Your task to perform on an android device: Open Google Maps and go to "Timeline" Image 0: 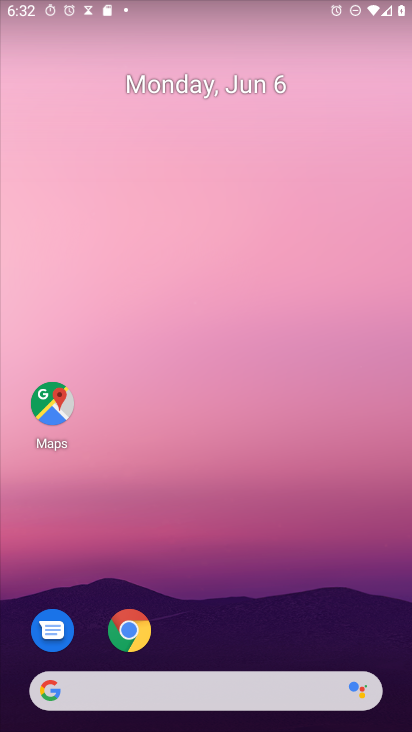
Step 0: drag from (283, 600) to (19, 86)
Your task to perform on an android device: Open Google Maps and go to "Timeline" Image 1: 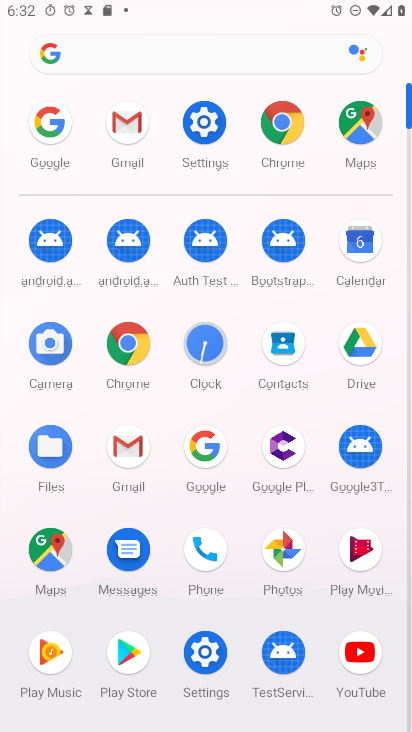
Step 1: click (52, 548)
Your task to perform on an android device: Open Google Maps and go to "Timeline" Image 2: 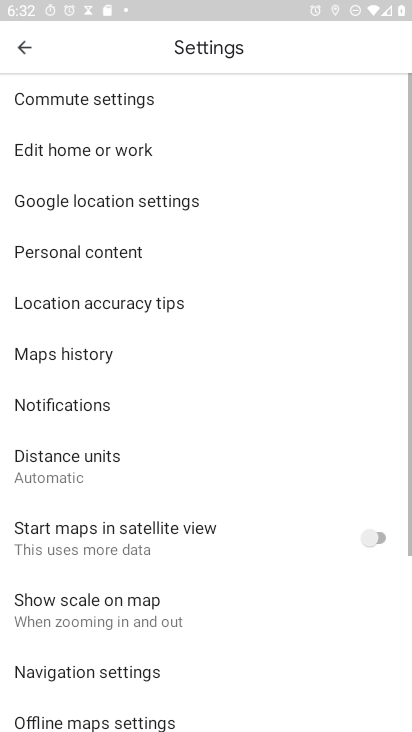
Step 2: click (31, 44)
Your task to perform on an android device: Open Google Maps and go to "Timeline" Image 3: 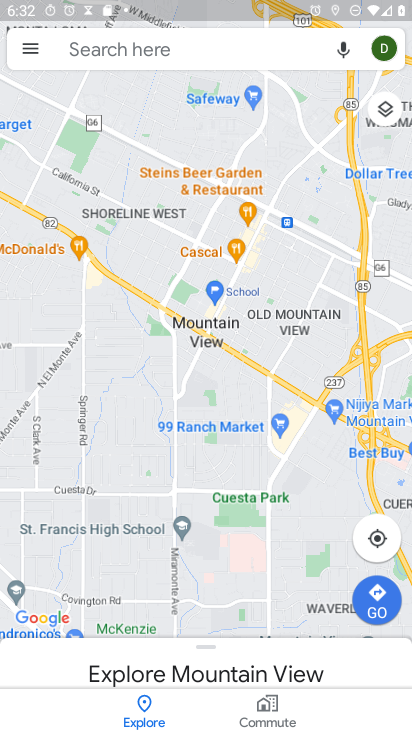
Step 3: click (37, 43)
Your task to perform on an android device: Open Google Maps and go to "Timeline" Image 4: 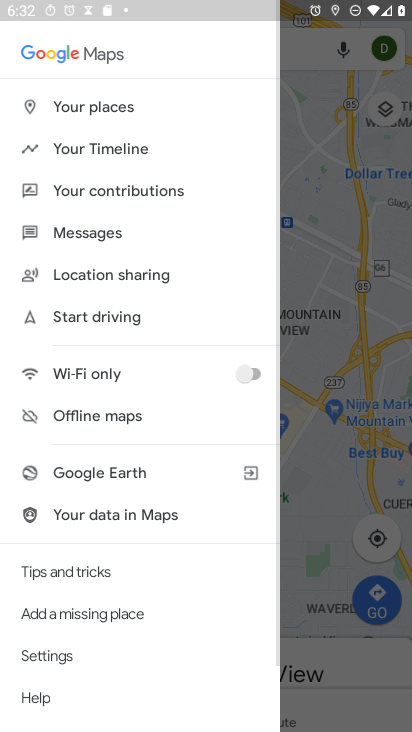
Step 4: click (97, 137)
Your task to perform on an android device: Open Google Maps and go to "Timeline" Image 5: 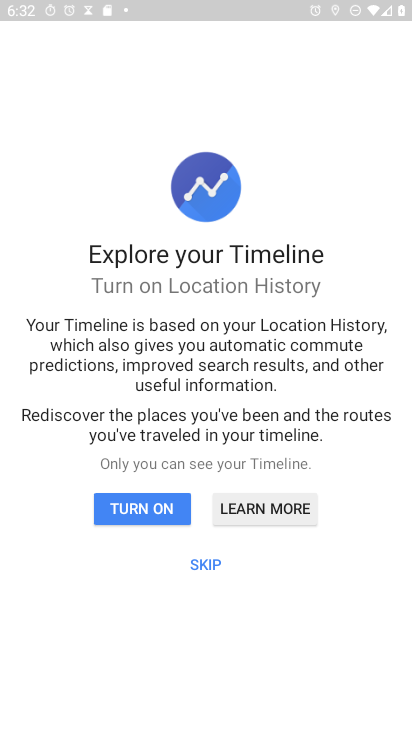
Step 5: click (152, 508)
Your task to perform on an android device: Open Google Maps and go to "Timeline" Image 6: 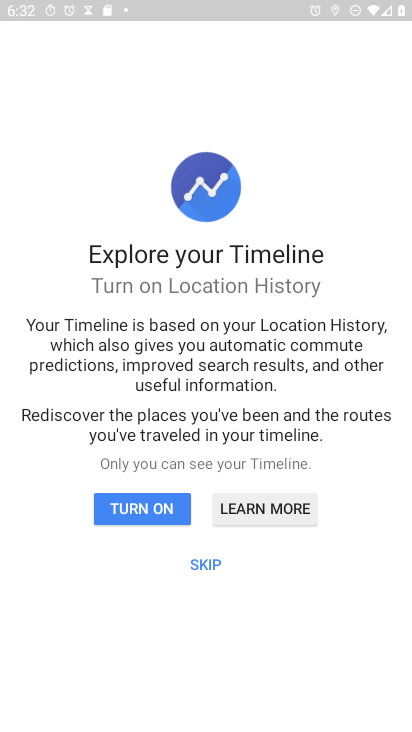
Step 6: task complete